Your task to perform on an android device: move an email to a new category in the gmail app Image 0: 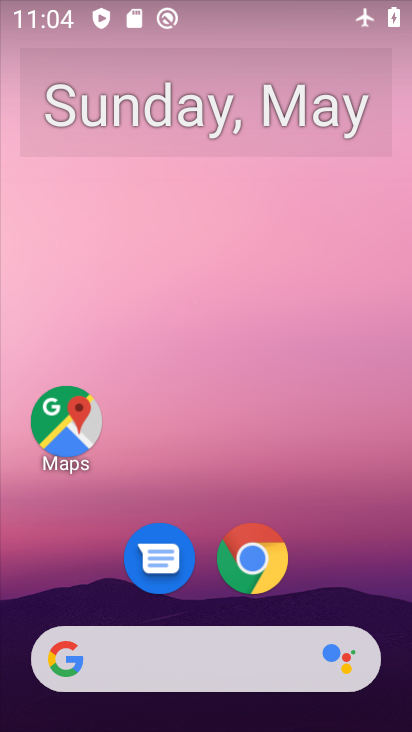
Step 0: drag from (377, 566) to (366, 240)
Your task to perform on an android device: move an email to a new category in the gmail app Image 1: 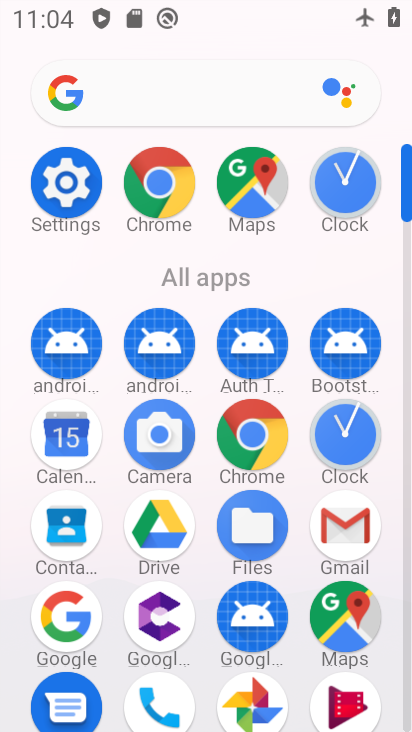
Step 1: click (362, 521)
Your task to perform on an android device: move an email to a new category in the gmail app Image 2: 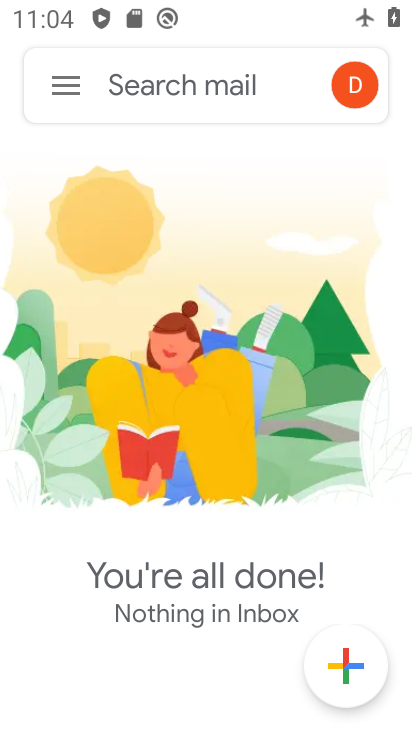
Step 2: click (76, 94)
Your task to perform on an android device: move an email to a new category in the gmail app Image 3: 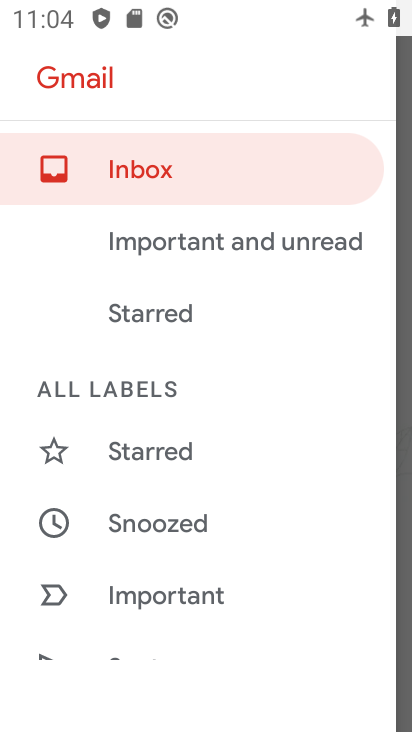
Step 3: drag from (316, 627) to (317, 451)
Your task to perform on an android device: move an email to a new category in the gmail app Image 4: 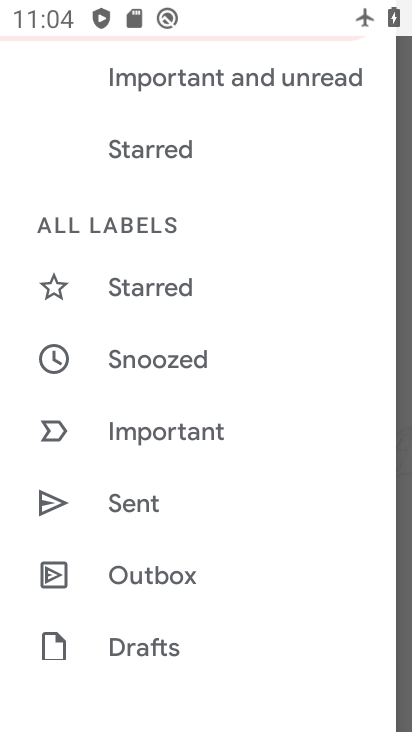
Step 4: drag from (318, 622) to (325, 464)
Your task to perform on an android device: move an email to a new category in the gmail app Image 5: 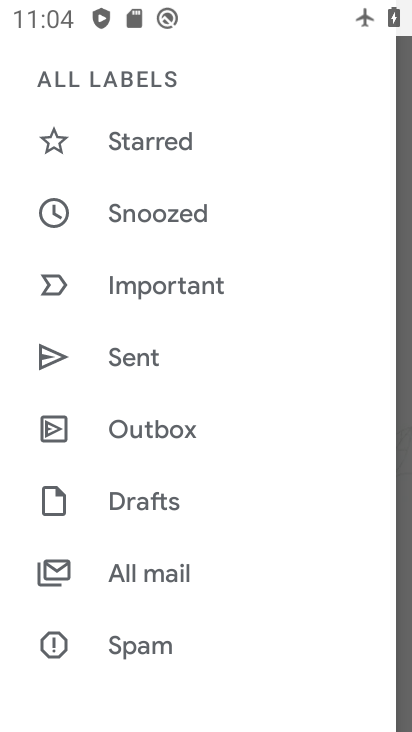
Step 5: drag from (325, 612) to (325, 466)
Your task to perform on an android device: move an email to a new category in the gmail app Image 6: 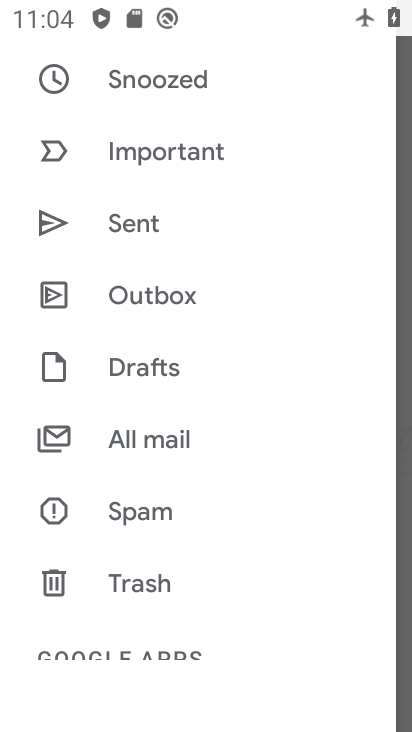
Step 6: drag from (314, 594) to (313, 447)
Your task to perform on an android device: move an email to a new category in the gmail app Image 7: 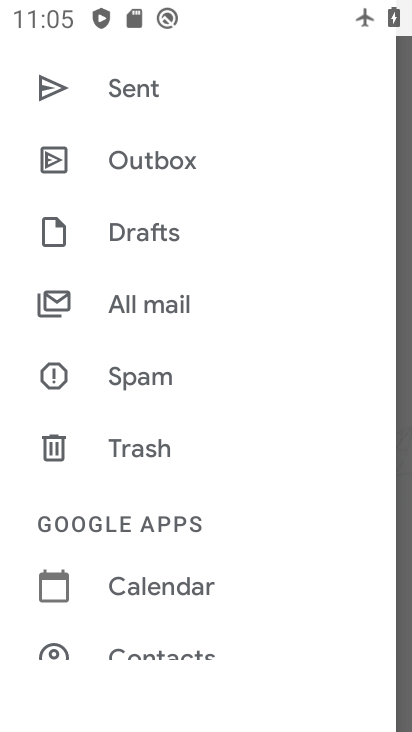
Step 7: drag from (309, 586) to (316, 402)
Your task to perform on an android device: move an email to a new category in the gmail app Image 8: 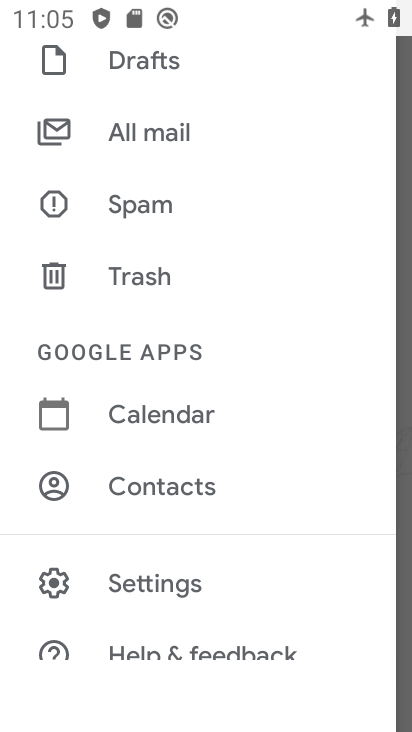
Step 8: drag from (320, 575) to (324, 422)
Your task to perform on an android device: move an email to a new category in the gmail app Image 9: 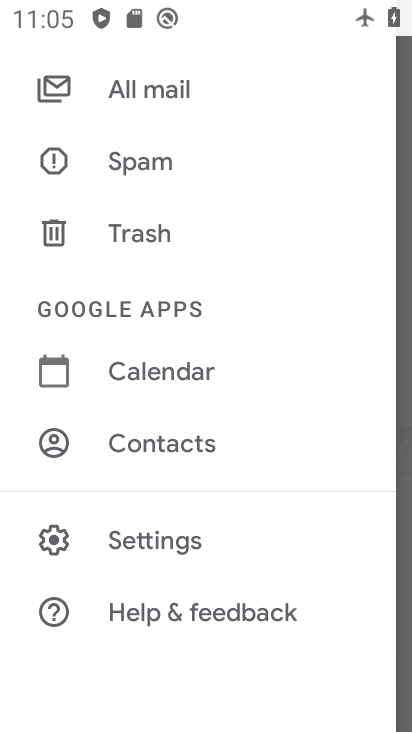
Step 9: drag from (329, 273) to (358, 565)
Your task to perform on an android device: move an email to a new category in the gmail app Image 10: 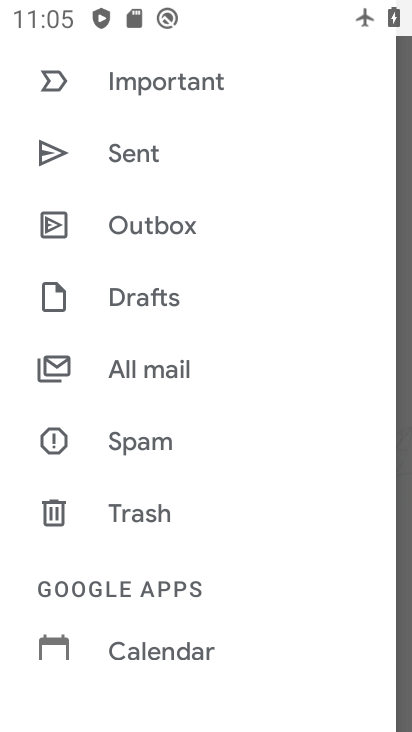
Step 10: drag from (343, 296) to (339, 505)
Your task to perform on an android device: move an email to a new category in the gmail app Image 11: 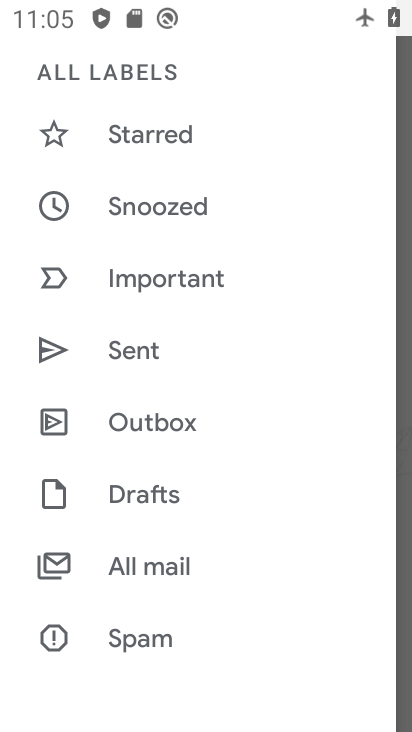
Step 11: drag from (324, 293) to (321, 481)
Your task to perform on an android device: move an email to a new category in the gmail app Image 12: 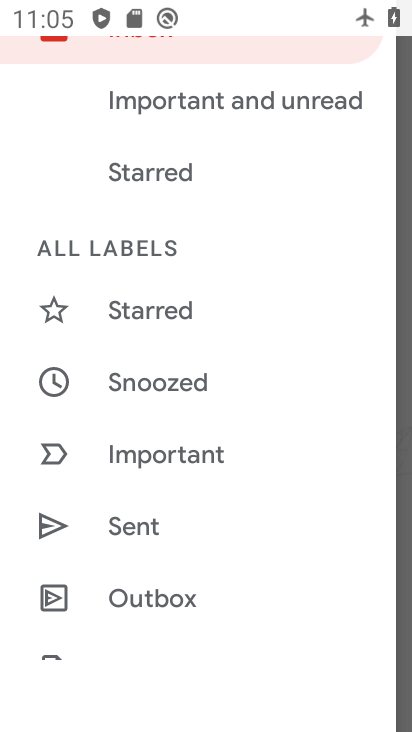
Step 12: drag from (318, 305) to (314, 518)
Your task to perform on an android device: move an email to a new category in the gmail app Image 13: 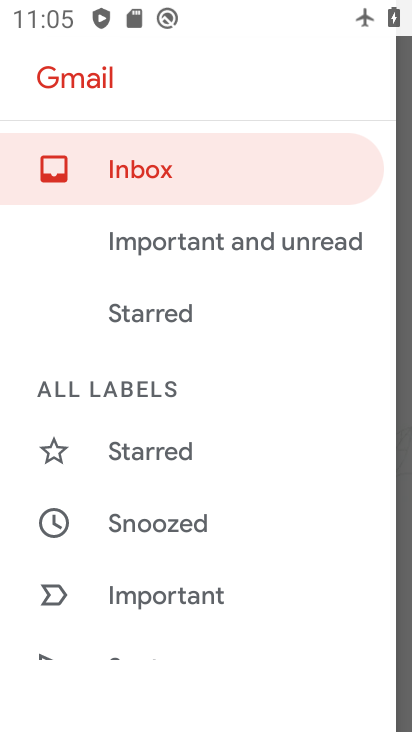
Step 13: click (171, 174)
Your task to perform on an android device: move an email to a new category in the gmail app Image 14: 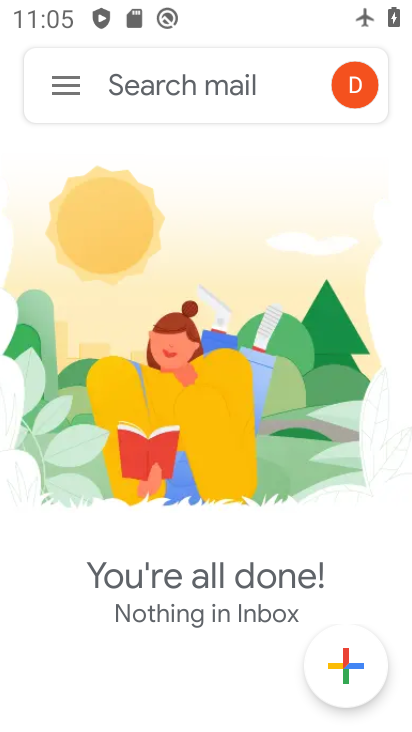
Step 14: task complete